Your task to perform on an android device: turn off airplane mode Image 0: 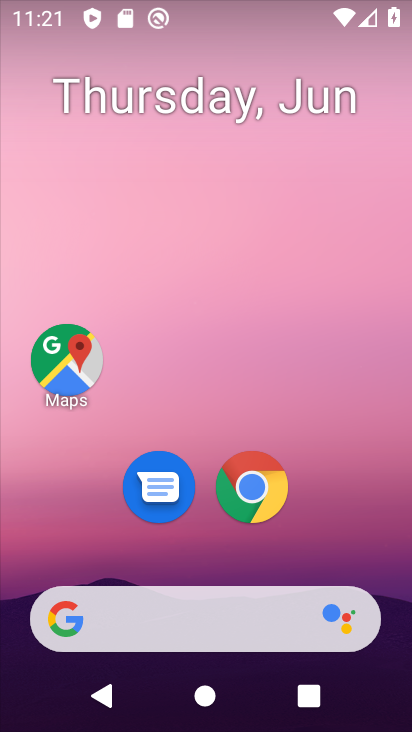
Step 0: drag from (97, 595) to (204, 59)
Your task to perform on an android device: turn off airplane mode Image 1: 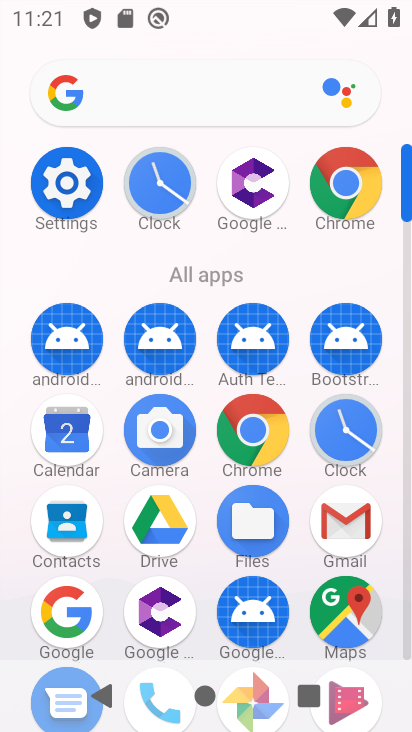
Step 1: drag from (136, 660) to (233, 335)
Your task to perform on an android device: turn off airplane mode Image 2: 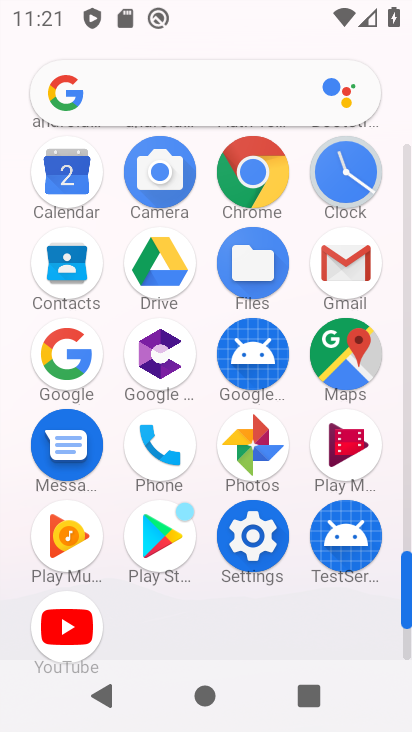
Step 2: click (264, 546)
Your task to perform on an android device: turn off airplane mode Image 3: 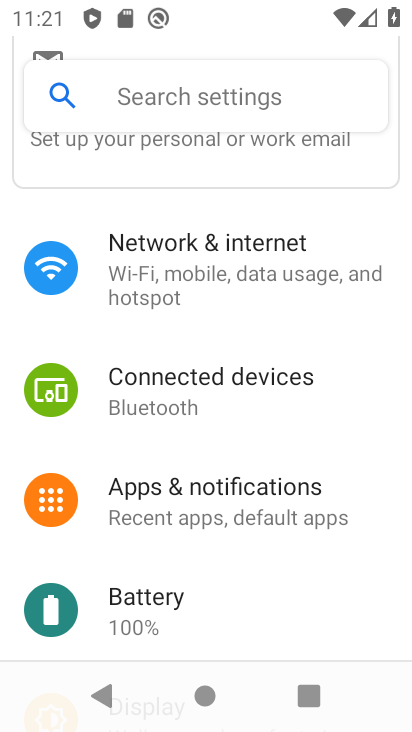
Step 3: click (187, 284)
Your task to perform on an android device: turn off airplane mode Image 4: 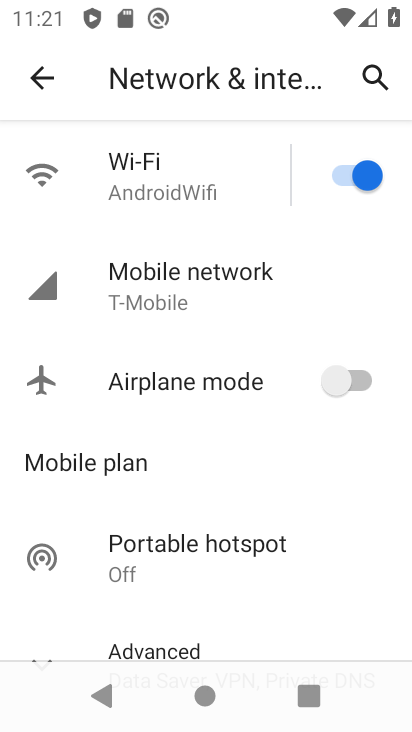
Step 4: task complete